Your task to perform on an android device: change text size in settings app Image 0: 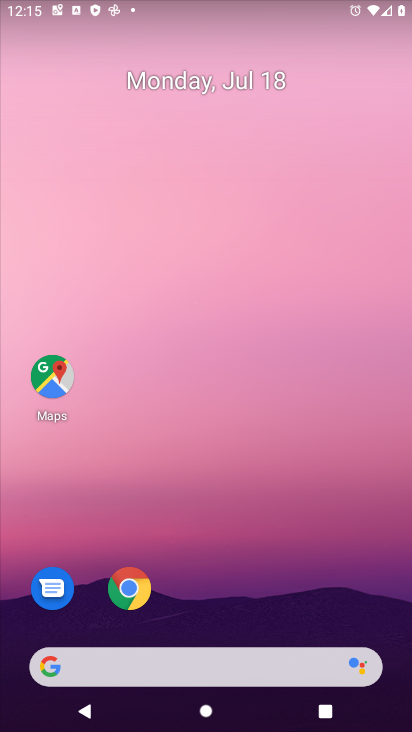
Step 0: drag from (243, 650) to (298, 156)
Your task to perform on an android device: change text size in settings app Image 1: 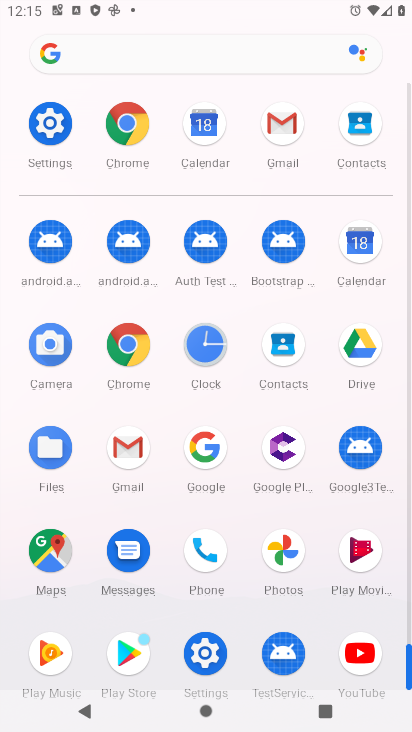
Step 1: click (56, 137)
Your task to perform on an android device: change text size in settings app Image 2: 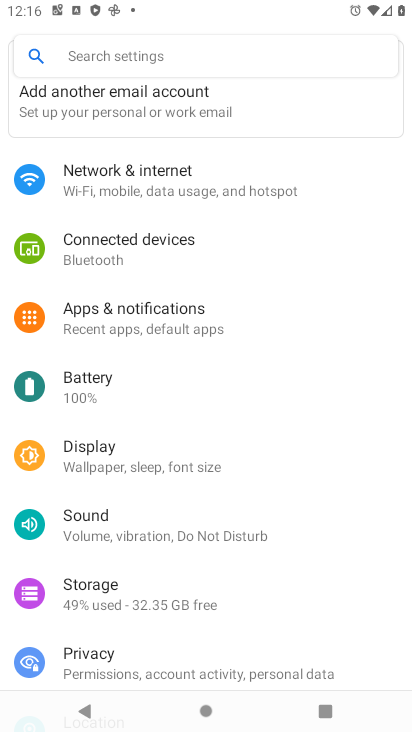
Step 2: click (139, 456)
Your task to perform on an android device: change text size in settings app Image 3: 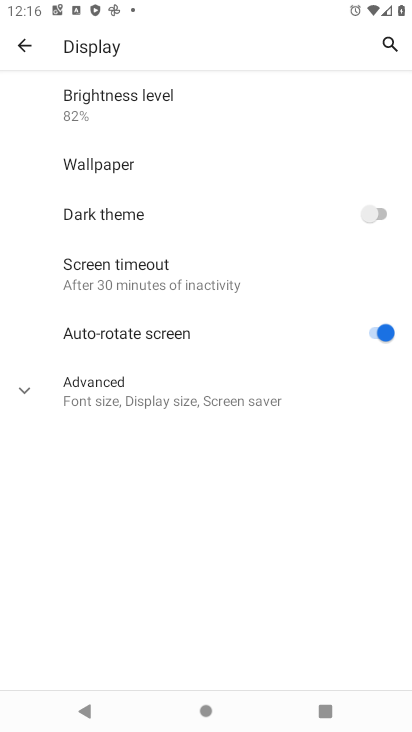
Step 3: click (167, 405)
Your task to perform on an android device: change text size in settings app Image 4: 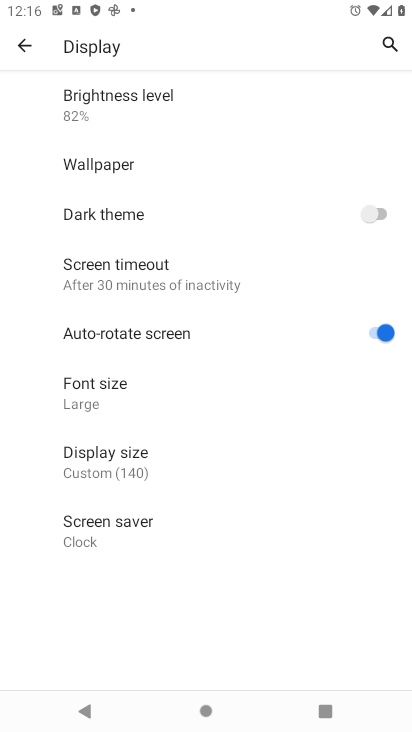
Step 4: click (129, 385)
Your task to perform on an android device: change text size in settings app Image 5: 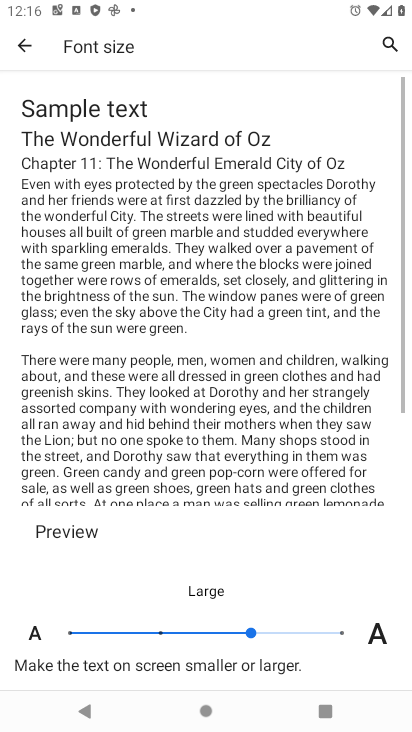
Step 5: click (299, 632)
Your task to perform on an android device: change text size in settings app Image 6: 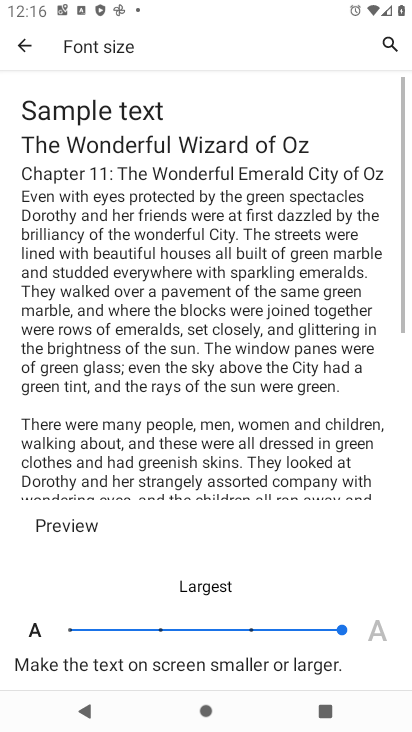
Step 6: task complete